Your task to perform on an android device: Go to Google maps Image 0: 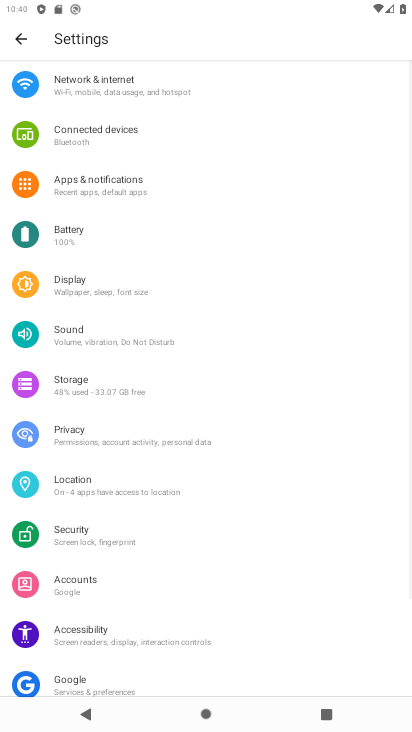
Step 0: press back button
Your task to perform on an android device: Go to Google maps Image 1: 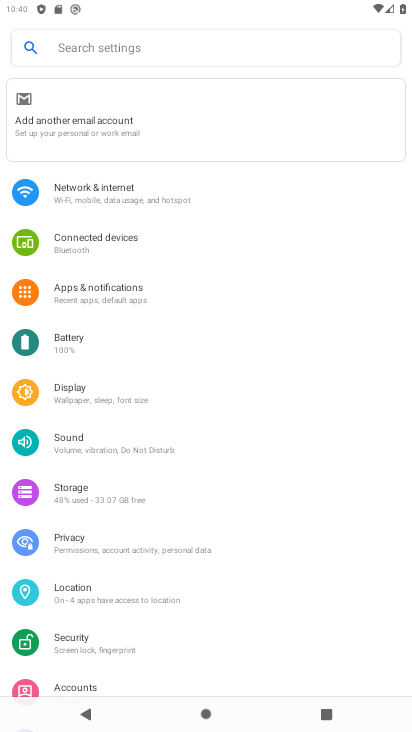
Step 1: press home button
Your task to perform on an android device: Go to Google maps Image 2: 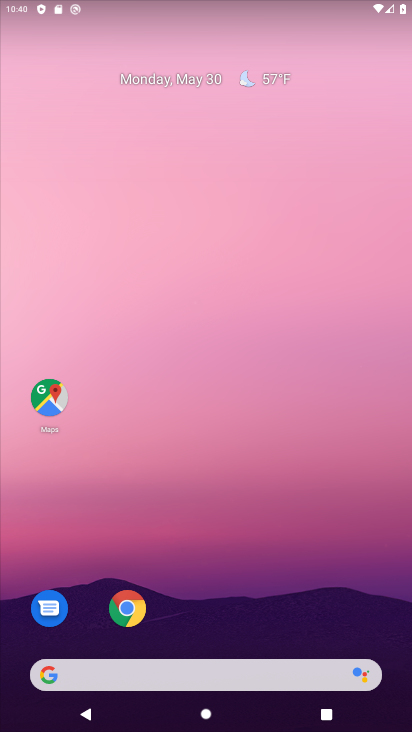
Step 2: drag from (323, 549) to (320, 27)
Your task to perform on an android device: Go to Google maps Image 3: 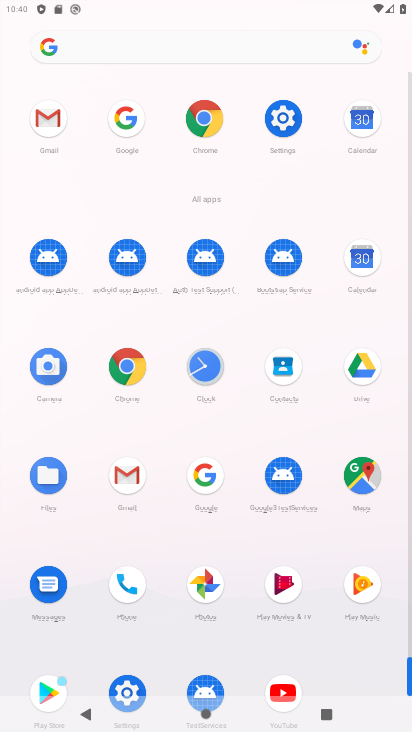
Step 3: click (363, 470)
Your task to perform on an android device: Go to Google maps Image 4: 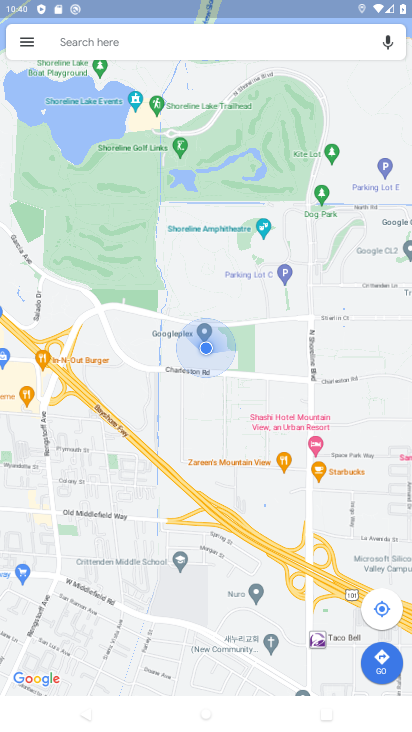
Step 4: task complete